Your task to perform on an android device: Open the Play Movies app and select the watchlist tab. Image 0: 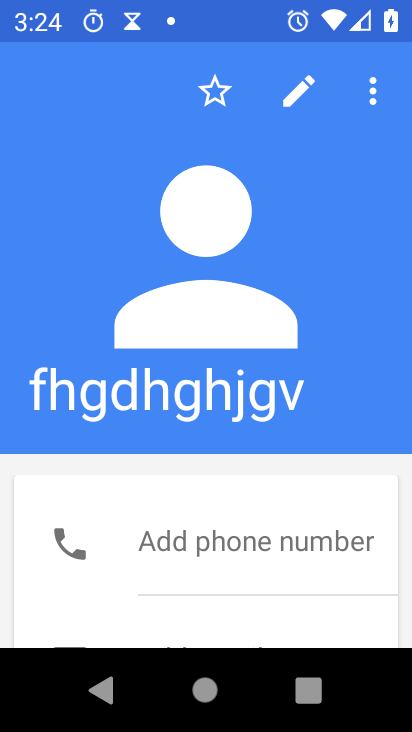
Step 0: press home button
Your task to perform on an android device: Open the Play Movies app and select the watchlist tab. Image 1: 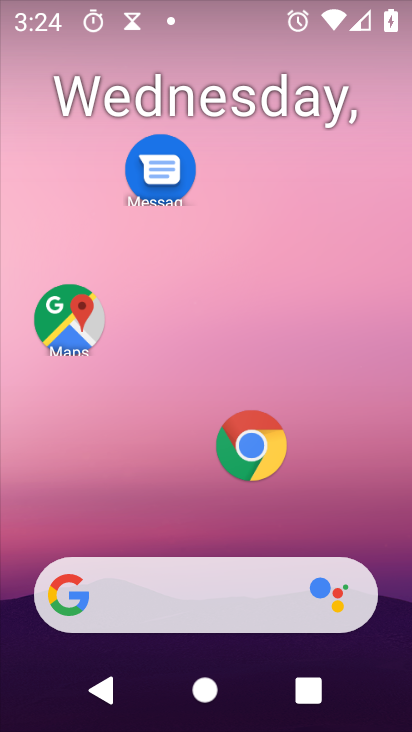
Step 1: drag from (65, 562) to (390, 207)
Your task to perform on an android device: Open the Play Movies app and select the watchlist tab. Image 2: 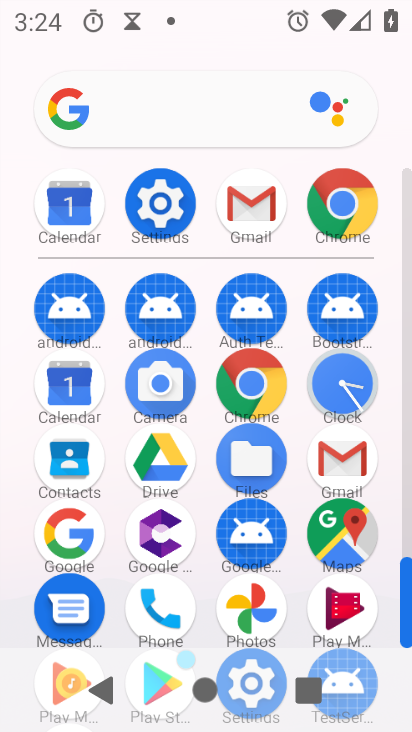
Step 2: click (363, 605)
Your task to perform on an android device: Open the Play Movies app and select the watchlist tab. Image 3: 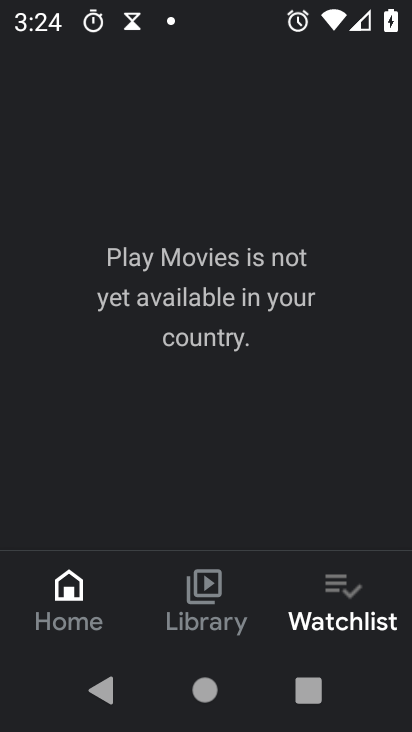
Step 3: click (307, 606)
Your task to perform on an android device: Open the Play Movies app and select the watchlist tab. Image 4: 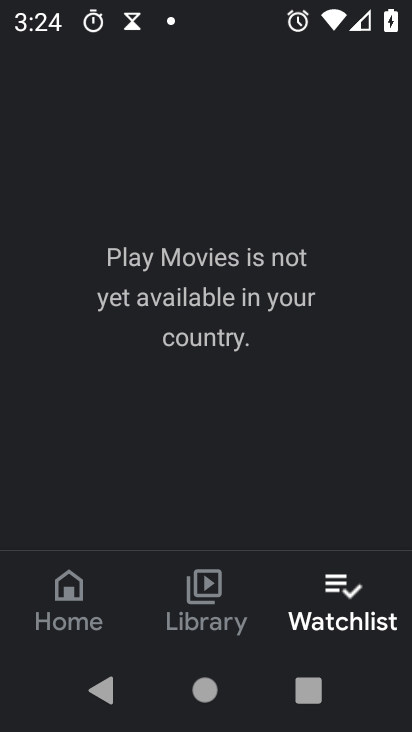
Step 4: task complete